Your task to perform on an android device: manage bookmarks in the chrome app Image 0: 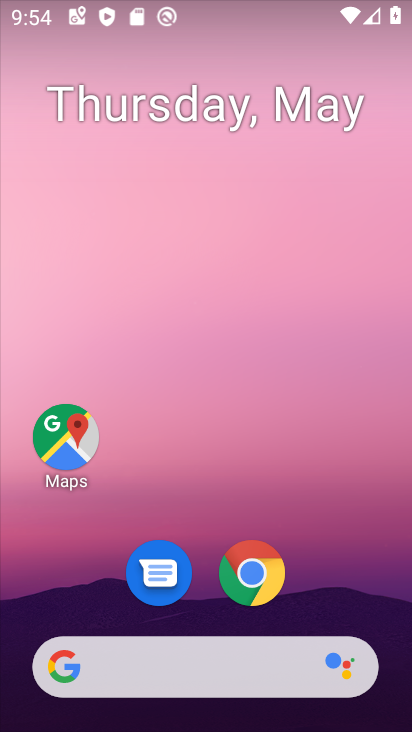
Step 0: click (256, 562)
Your task to perform on an android device: manage bookmarks in the chrome app Image 1: 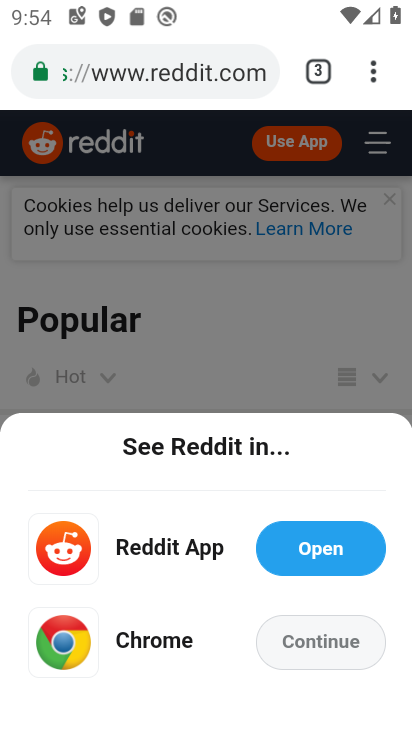
Step 1: drag from (370, 80) to (139, 276)
Your task to perform on an android device: manage bookmarks in the chrome app Image 2: 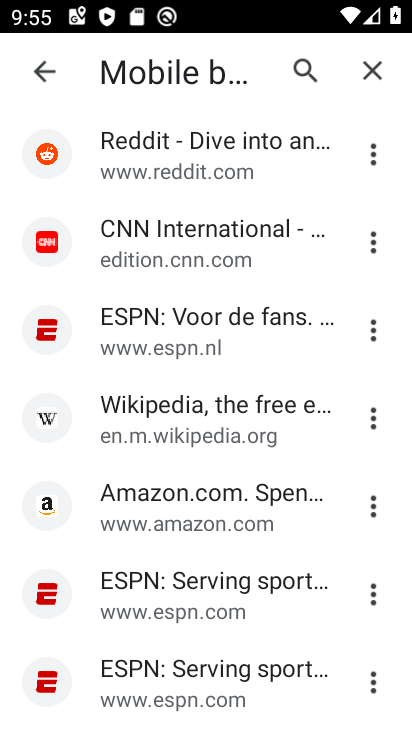
Step 2: click (372, 236)
Your task to perform on an android device: manage bookmarks in the chrome app Image 3: 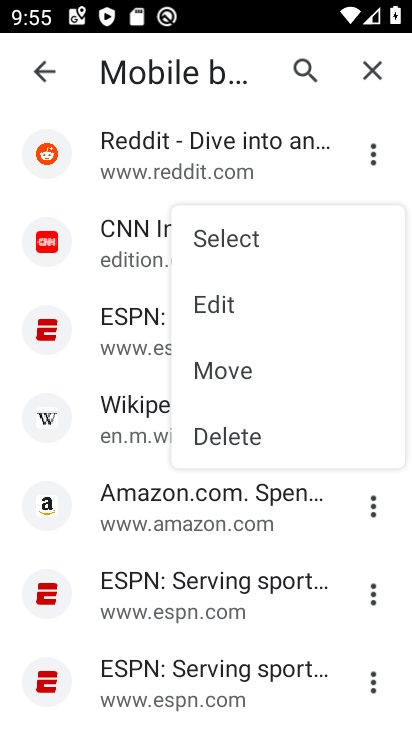
Step 3: drag from (371, 238) to (261, 433)
Your task to perform on an android device: manage bookmarks in the chrome app Image 4: 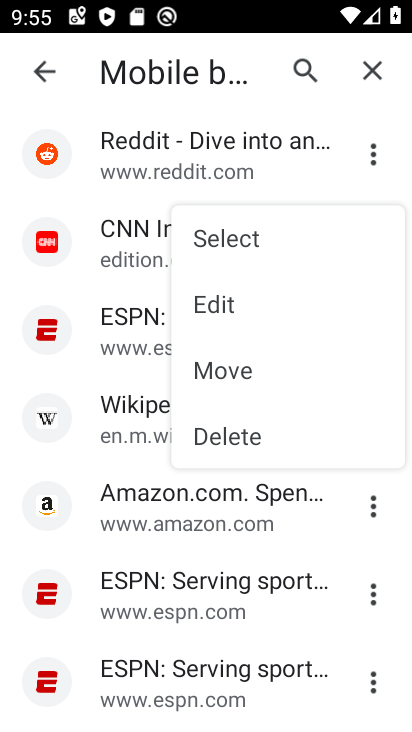
Step 4: click (263, 433)
Your task to perform on an android device: manage bookmarks in the chrome app Image 5: 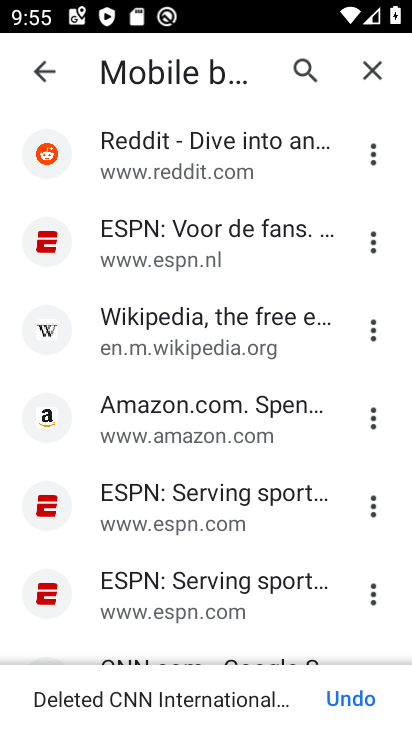
Step 5: task complete